Your task to perform on an android device: open chrome privacy settings Image 0: 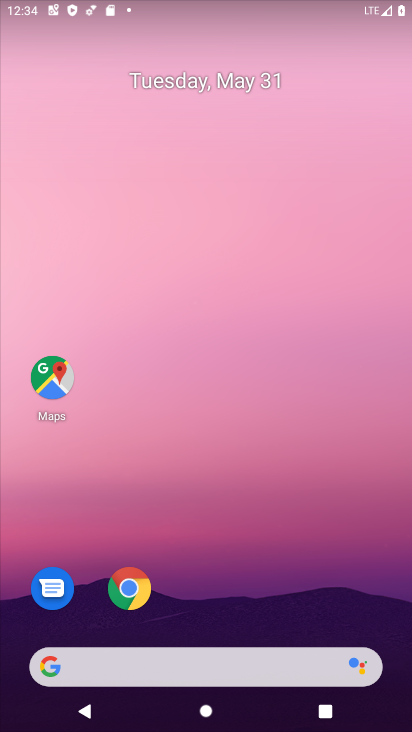
Step 0: drag from (204, 627) to (264, 0)
Your task to perform on an android device: open chrome privacy settings Image 1: 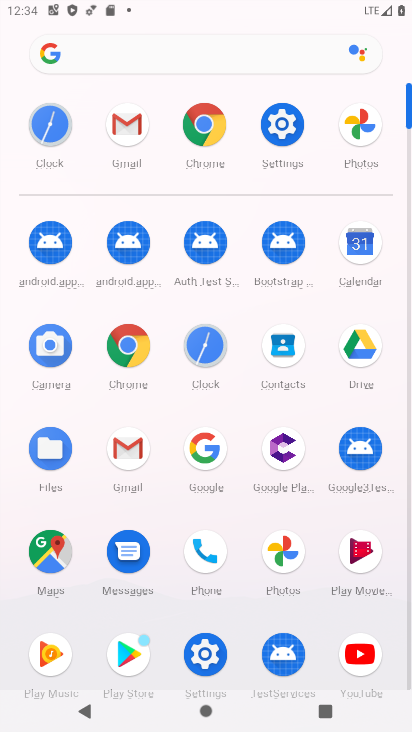
Step 1: click (198, 117)
Your task to perform on an android device: open chrome privacy settings Image 2: 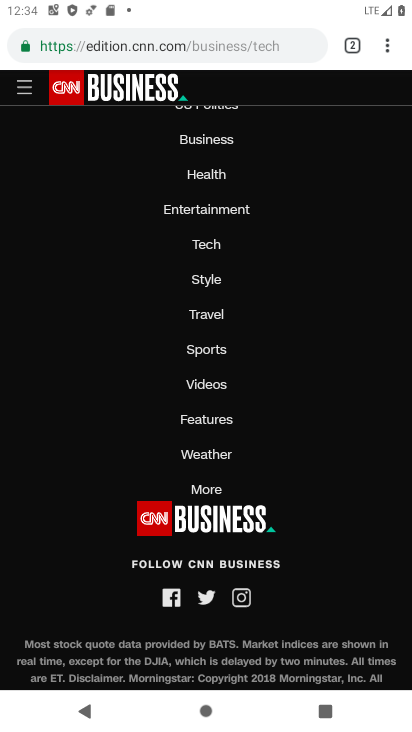
Step 2: drag from (255, 458) to (270, 108)
Your task to perform on an android device: open chrome privacy settings Image 3: 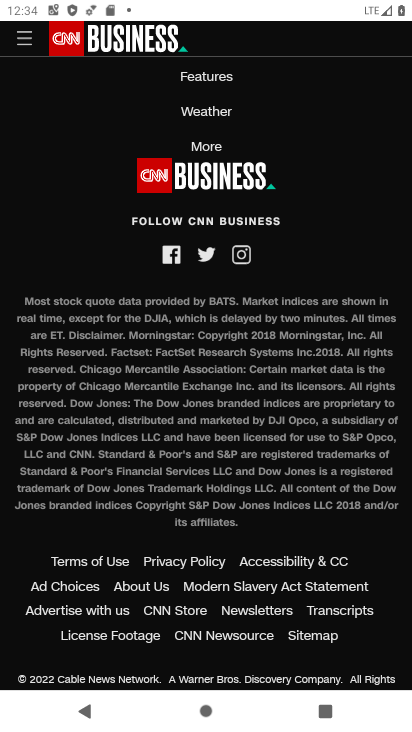
Step 3: drag from (295, 129) to (302, 534)
Your task to perform on an android device: open chrome privacy settings Image 4: 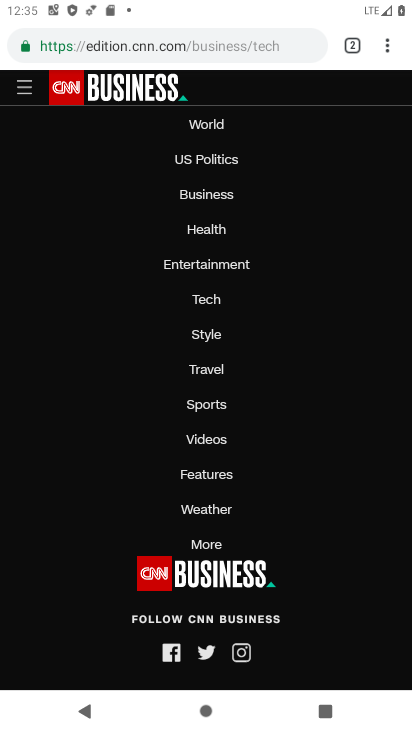
Step 4: click (388, 39)
Your task to perform on an android device: open chrome privacy settings Image 5: 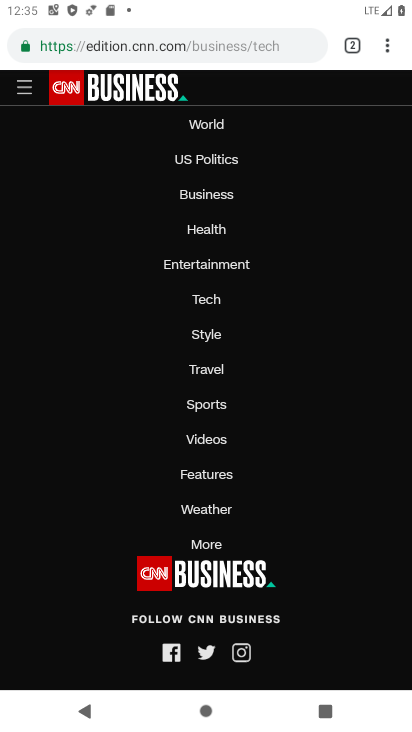
Step 5: click (387, 49)
Your task to perform on an android device: open chrome privacy settings Image 6: 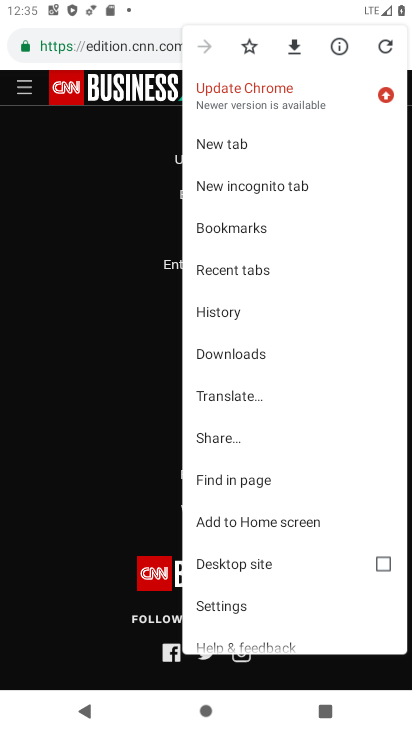
Step 6: click (250, 605)
Your task to perform on an android device: open chrome privacy settings Image 7: 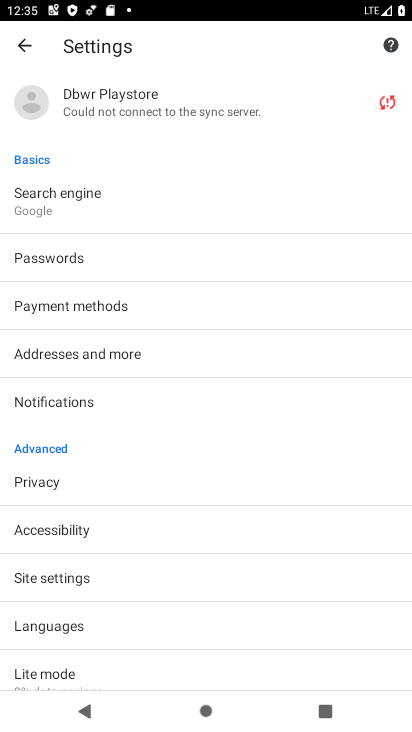
Step 7: click (74, 483)
Your task to perform on an android device: open chrome privacy settings Image 8: 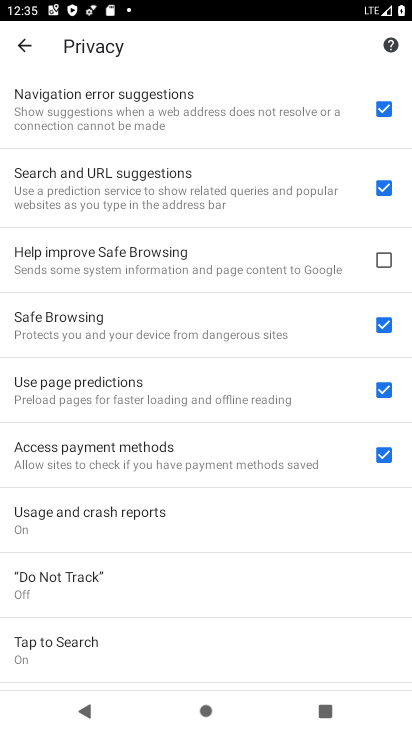
Step 8: task complete